Your task to perform on an android device: turn on location history Image 0: 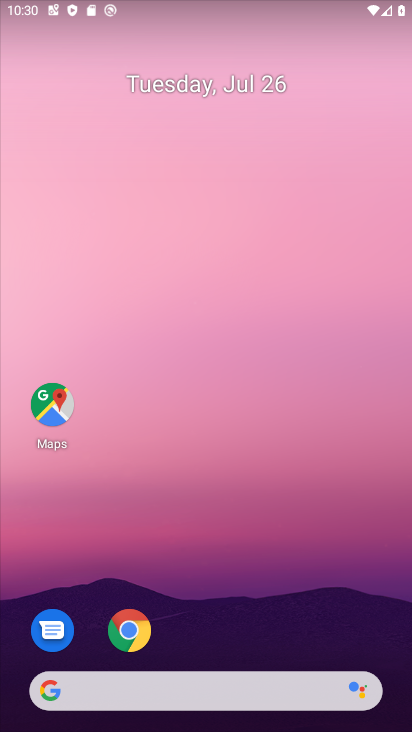
Step 0: click (173, 251)
Your task to perform on an android device: turn on location history Image 1: 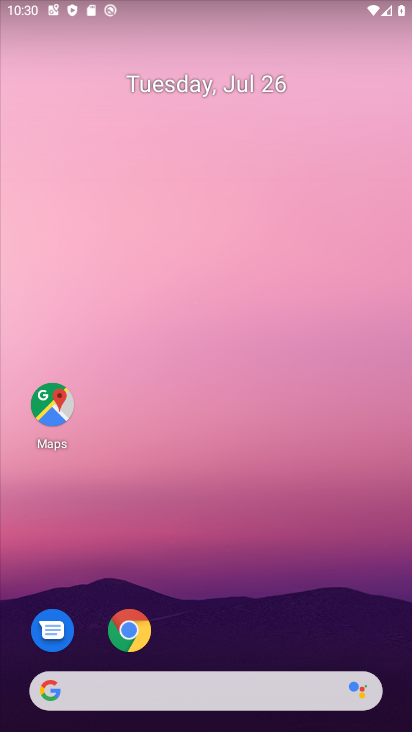
Step 1: click (224, 144)
Your task to perform on an android device: turn on location history Image 2: 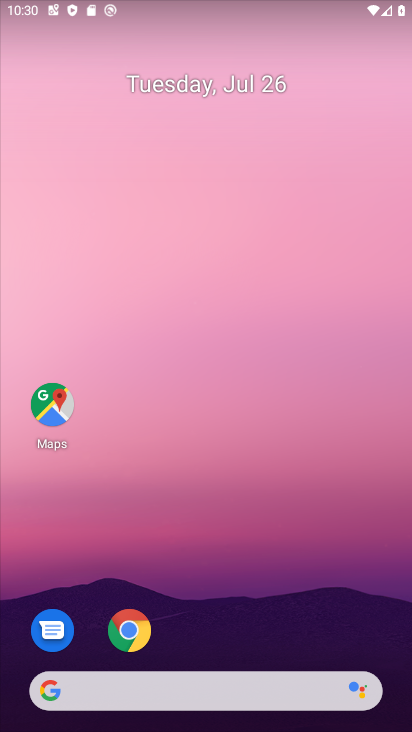
Step 2: drag from (198, 606) to (178, 121)
Your task to perform on an android device: turn on location history Image 3: 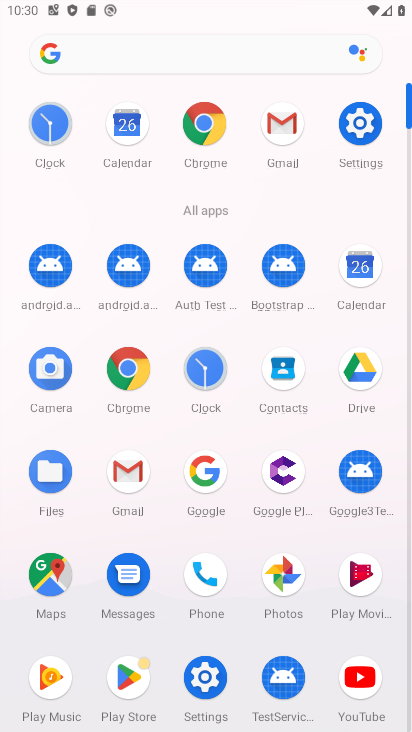
Step 3: click (361, 126)
Your task to perform on an android device: turn on location history Image 4: 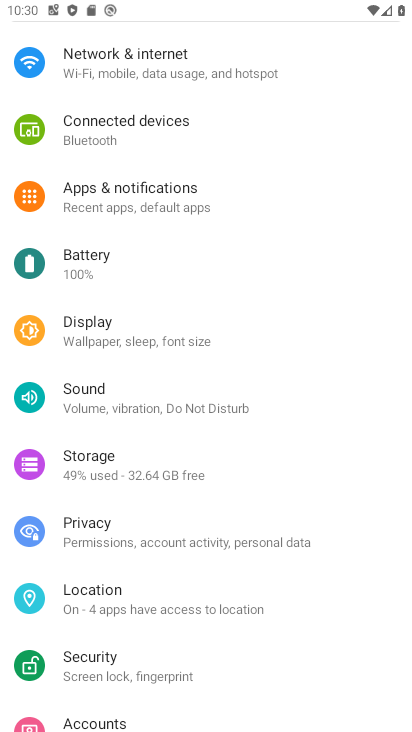
Step 4: click (88, 600)
Your task to perform on an android device: turn on location history Image 5: 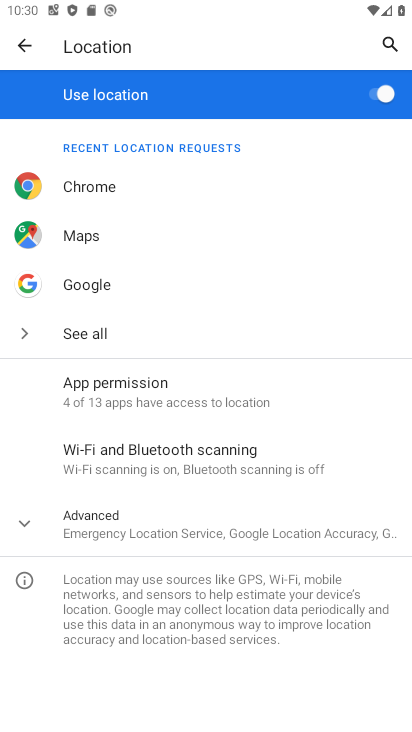
Step 5: click (81, 542)
Your task to perform on an android device: turn on location history Image 6: 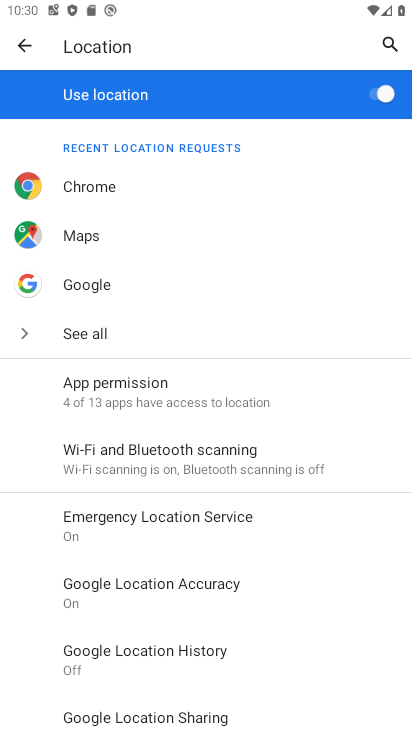
Step 6: click (98, 645)
Your task to perform on an android device: turn on location history Image 7: 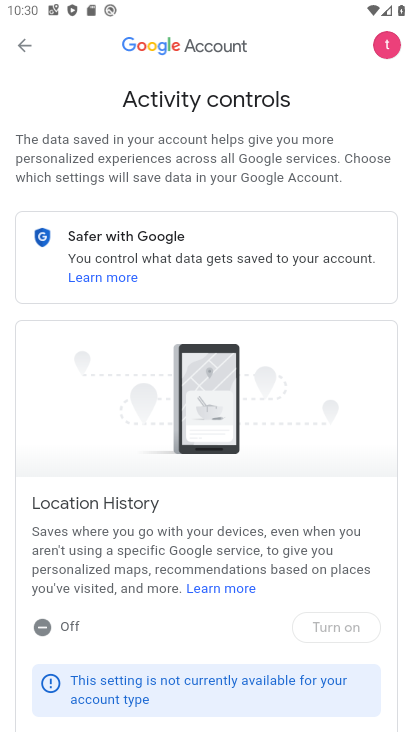
Step 7: task complete